Your task to perform on an android device: View the shopping cart on ebay. Add "bose quietcomfort 35" to the cart on ebay, then select checkout. Image 0: 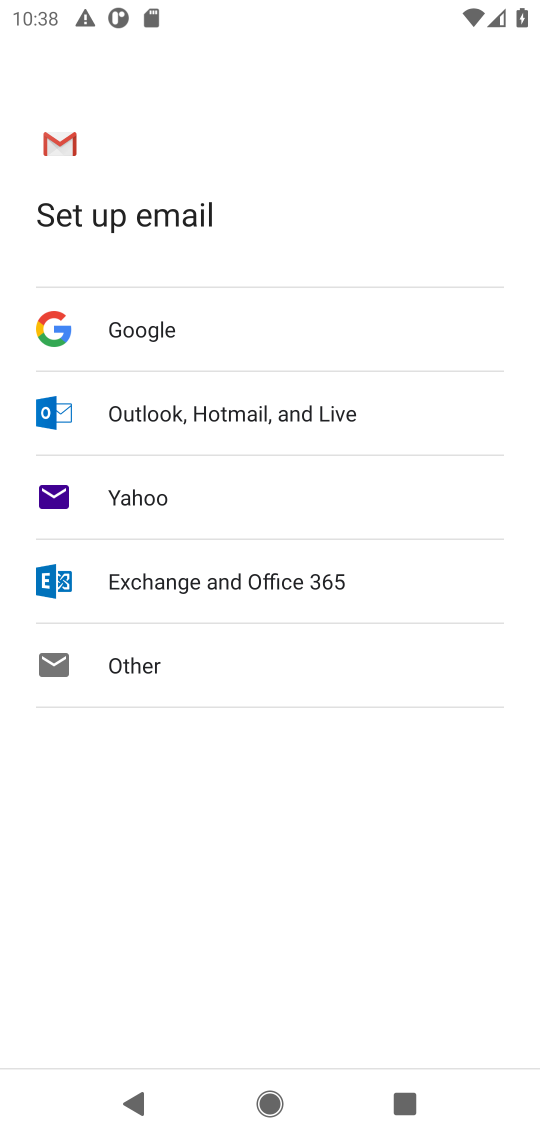
Step 0: press home button
Your task to perform on an android device: View the shopping cart on ebay. Add "bose quietcomfort 35" to the cart on ebay, then select checkout. Image 1: 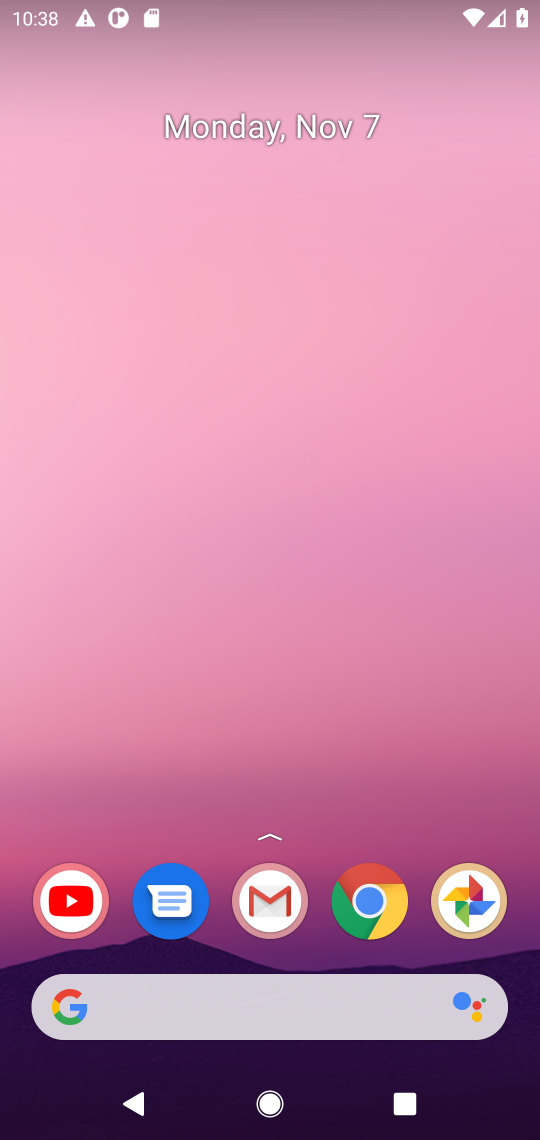
Step 1: click (396, 891)
Your task to perform on an android device: View the shopping cart on ebay. Add "bose quietcomfort 35" to the cart on ebay, then select checkout. Image 2: 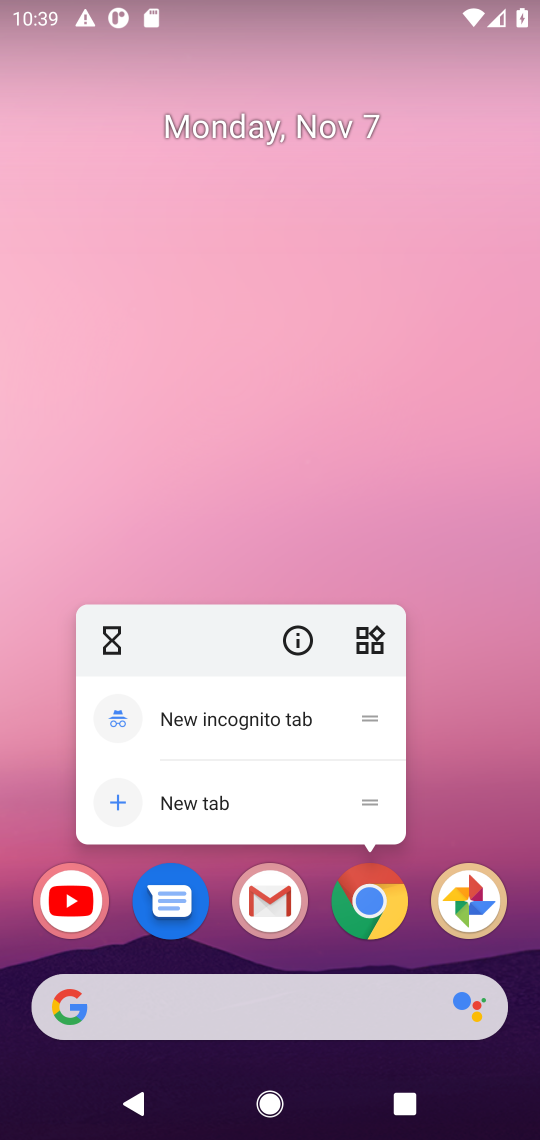
Step 2: click (359, 903)
Your task to perform on an android device: View the shopping cart on ebay. Add "bose quietcomfort 35" to the cart on ebay, then select checkout. Image 3: 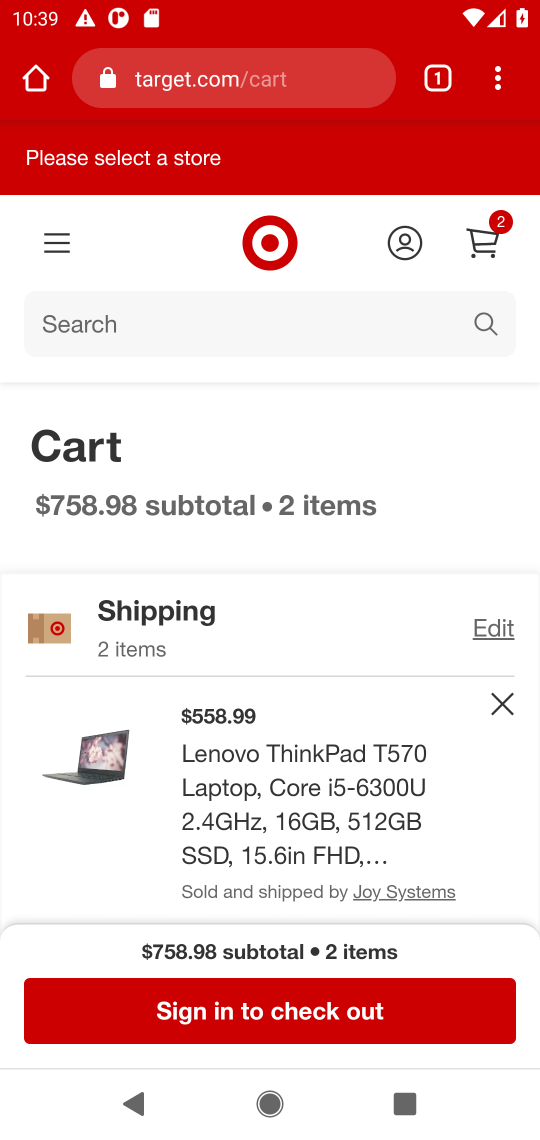
Step 3: click (248, 70)
Your task to perform on an android device: View the shopping cart on ebay. Add "bose quietcomfort 35" to the cart on ebay, then select checkout. Image 4: 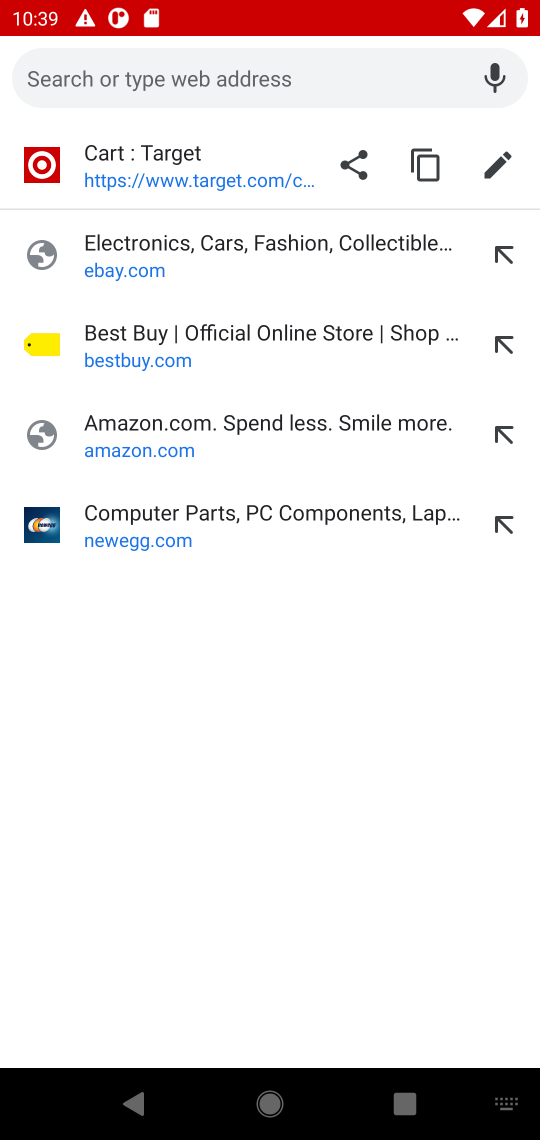
Step 4: type "ebay"
Your task to perform on an android device: View the shopping cart on ebay. Add "bose quietcomfort 35" to the cart on ebay, then select checkout. Image 5: 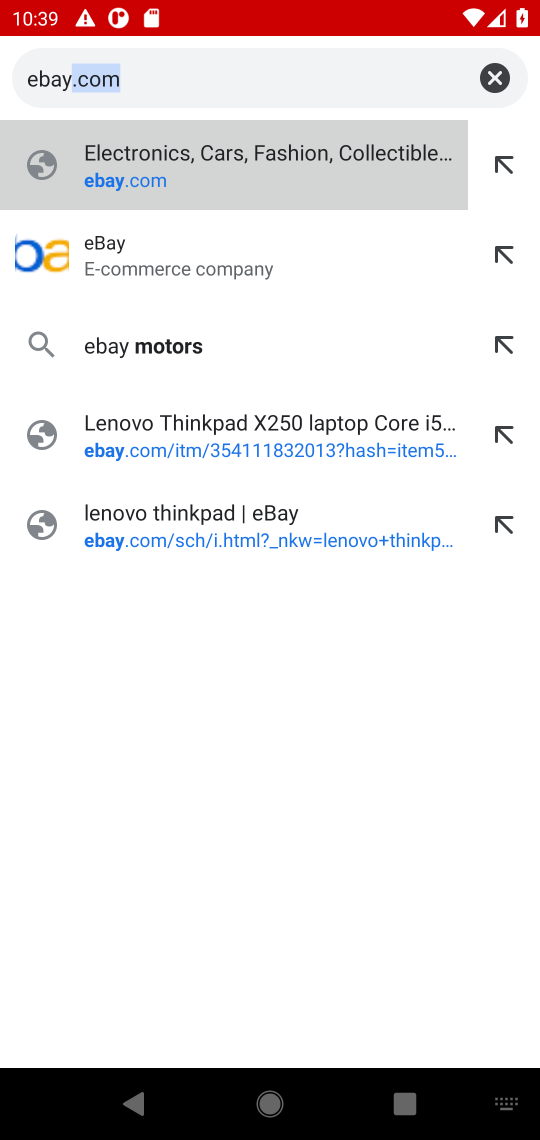
Step 5: click (319, 162)
Your task to perform on an android device: View the shopping cart on ebay. Add "bose quietcomfort 35" to the cart on ebay, then select checkout. Image 6: 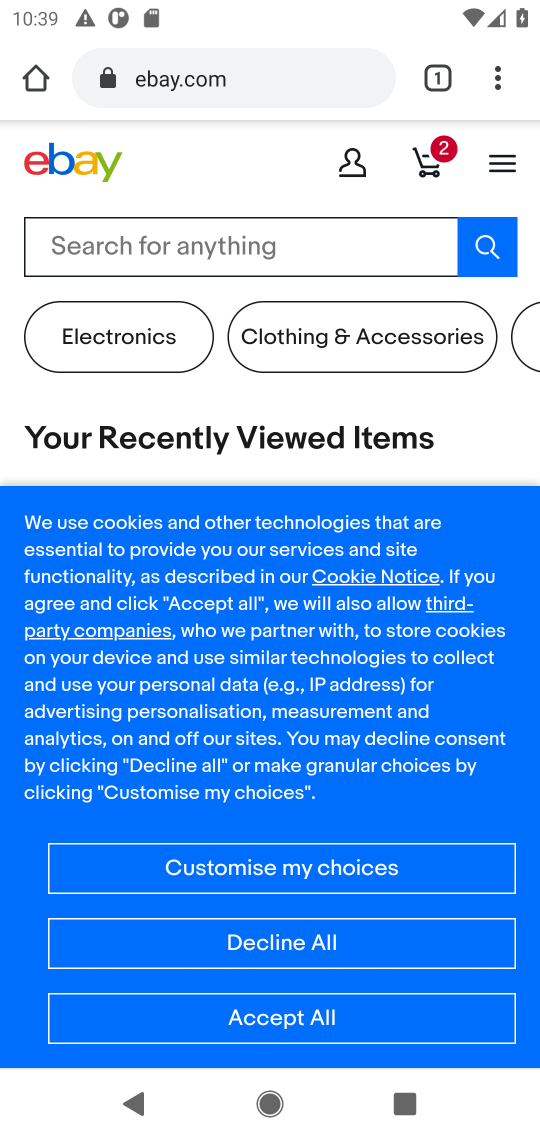
Step 6: click (152, 257)
Your task to perform on an android device: View the shopping cart on ebay. Add "bose quietcomfort 35" to the cart on ebay, then select checkout. Image 7: 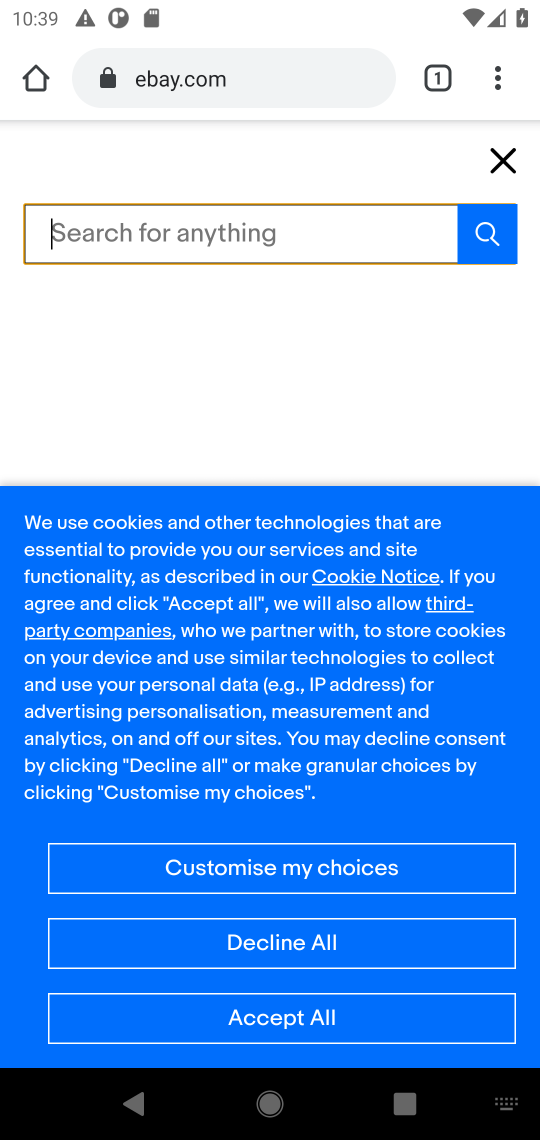
Step 7: type "bose quietcomfort 35"
Your task to perform on an android device: View the shopping cart on ebay. Add "bose quietcomfort 35" to the cart on ebay, then select checkout. Image 8: 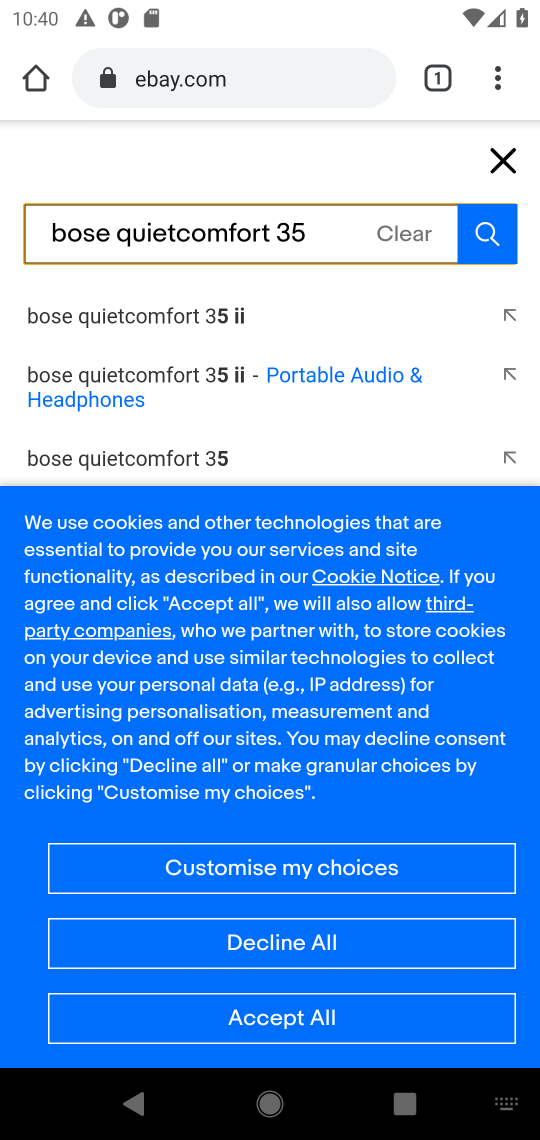
Step 8: press enter
Your task to perform on an android device: View the shopping cart on ebay. Add "bose quietcomfort 35" to the cart on ebay, then select checkout. Image 9: 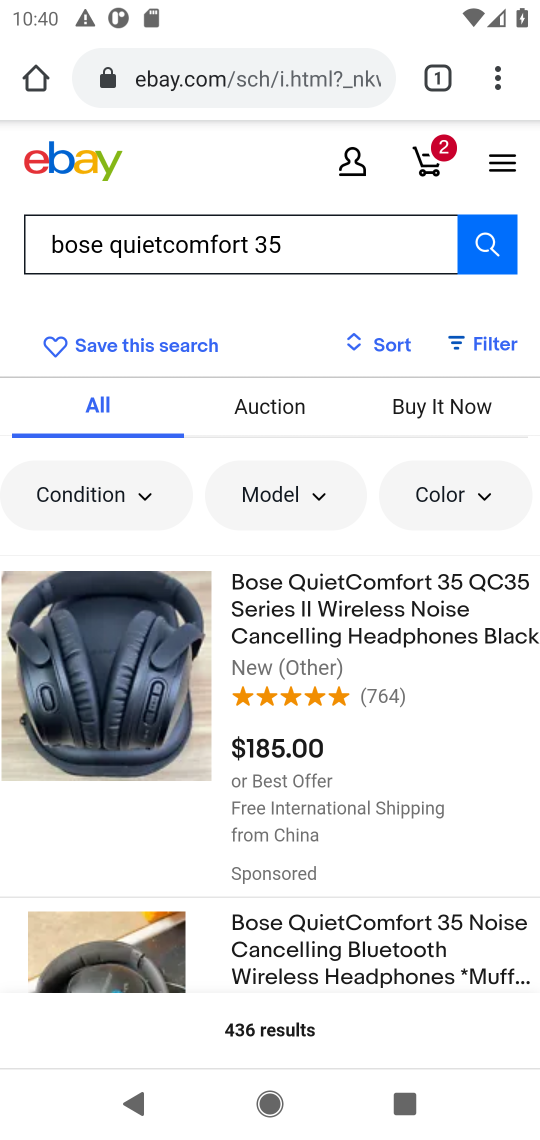
Step 9: click (192, 687)
Your task to perform on an android device: View the shopping cart on ebay. Add "bose quietcomfort 35" to the cart on ebay, then select checkout. Image 10: 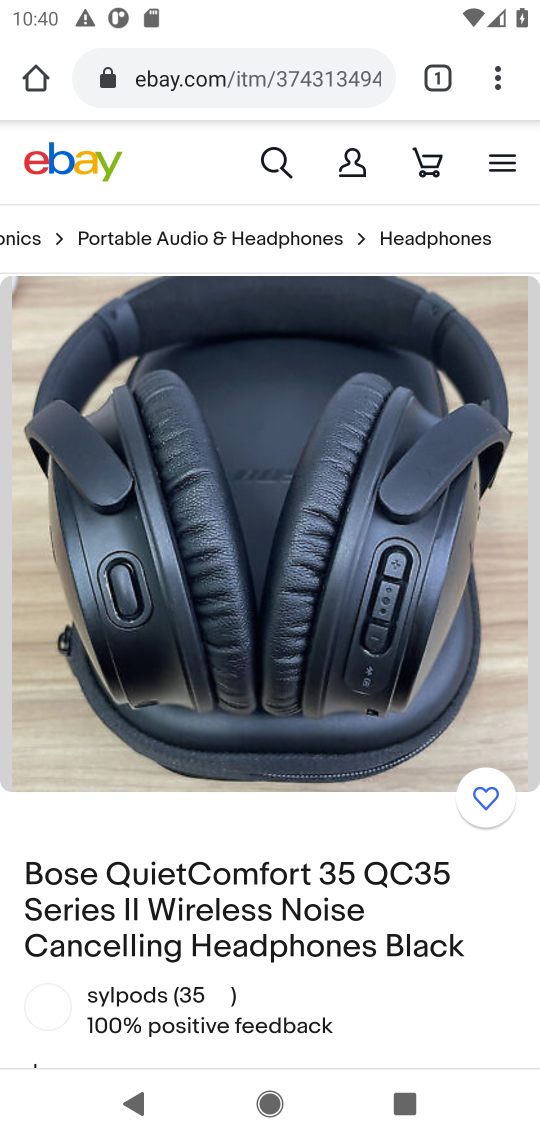
Step 10: drag from (269, 833) to (302, 275)
Your task to perform on an android device: View the shopping cart on ebay. Add "bose quietcomfort 35" to the cart on ebay, then select checkout. Image 11: 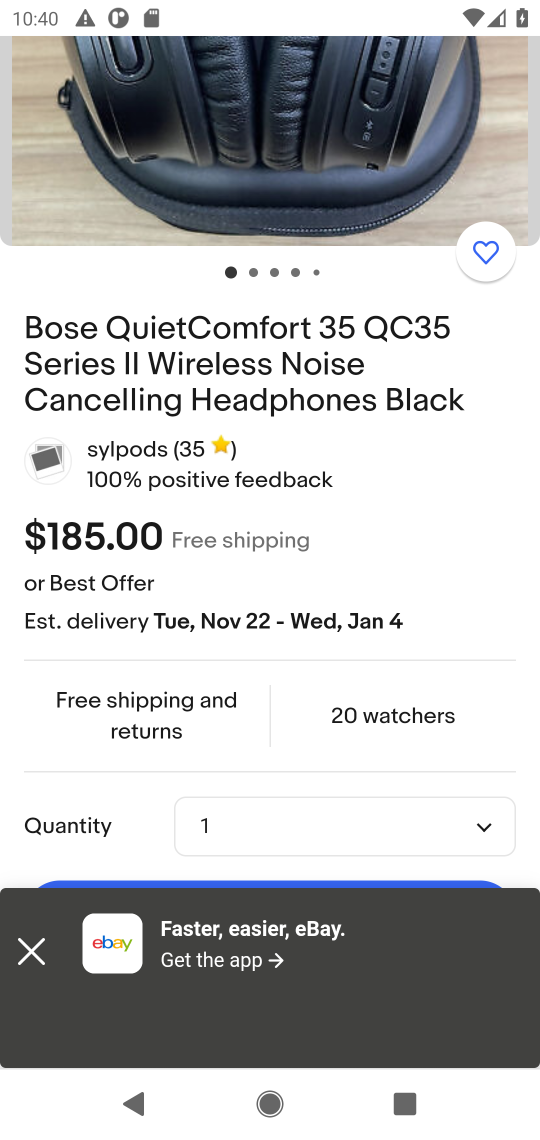
Step 11: drag from (200, 755) to (183, 376)
Your task to perform on an android device: View the shopping cart on ebay. Add "bose quietcomfort 35" to the cart on ebay, then select checkout. Image 12: 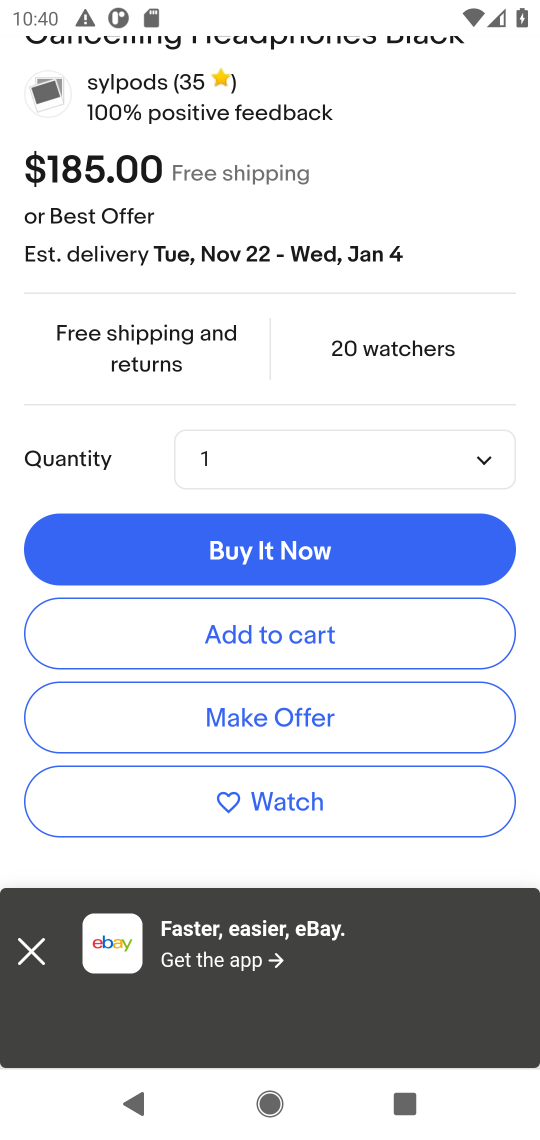
Step 12: click (239, 619)
Your task to perform on an android device: View the shopping cart on ebay. Add "bose quietcomfort 35" to the cart on ebay, then select checkout. Image 13: 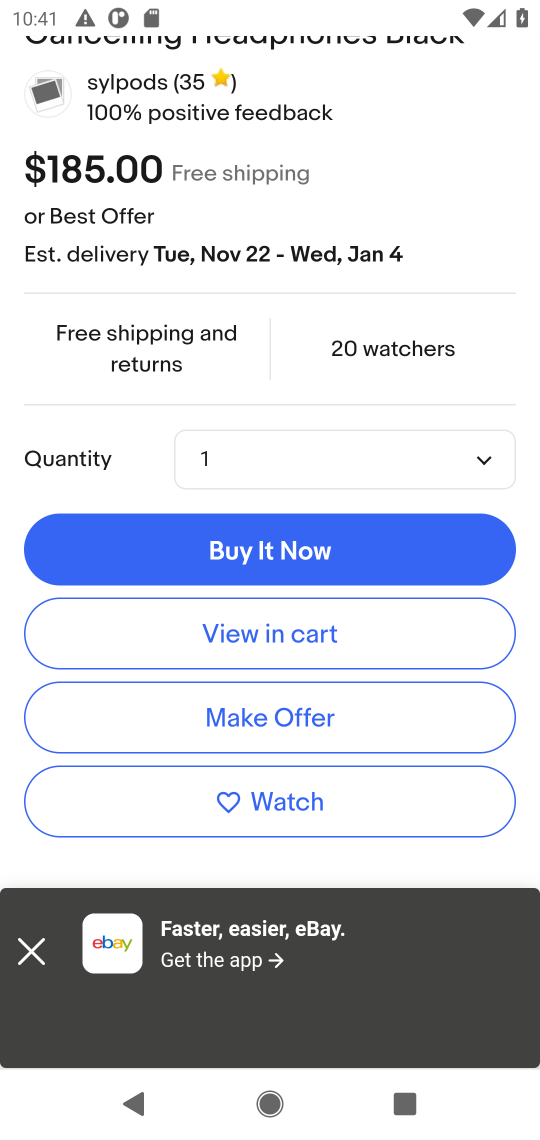
Step 13: drag from (417, 198) to (256, 1002)
Your task to perform on an android device: View the shopping cart on ebay. Add "bose quietcomfort 35" to the cart on ebay, then select checkout. Image 14: 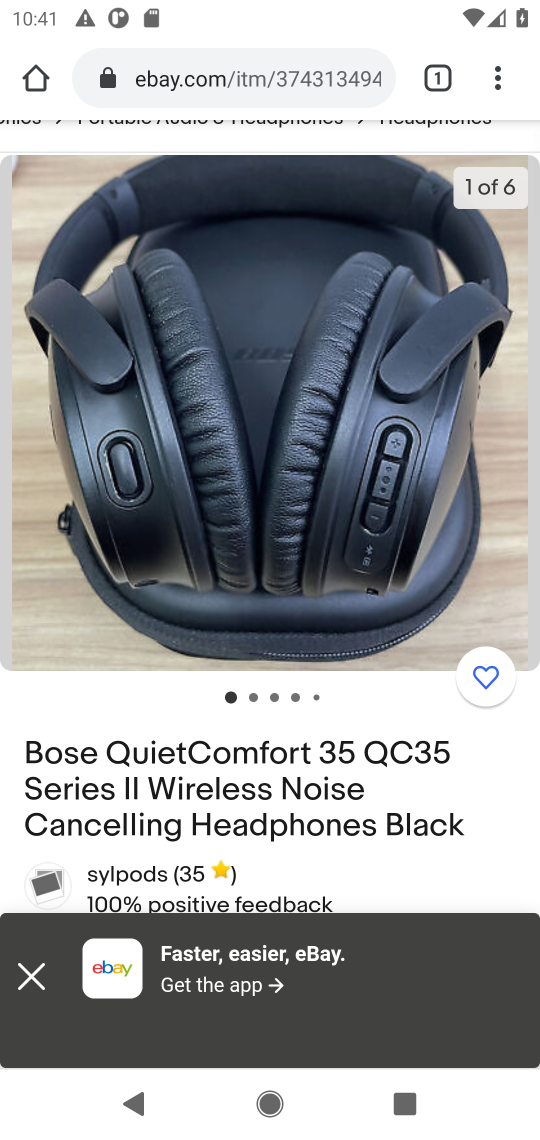
Step 14: drag from (444, 381) to (380, 684)
Your task to perform on an android device: View the shopping cart on ebay. Add "bose quietcomfort 35" to the cart on ebay, then select checkout. Image 15: 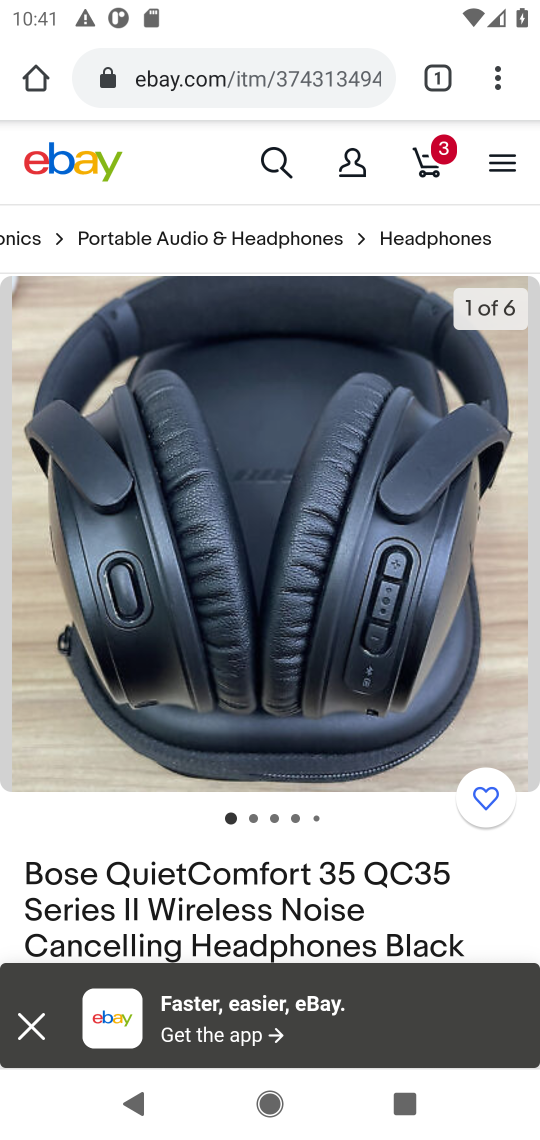
Step 15: click (433, 153)
Your task to perform on an android device: View the shopping cart on ebay. Add "bose quietcomfort 35" to the cart on ebay, then select checkout. Image 16: 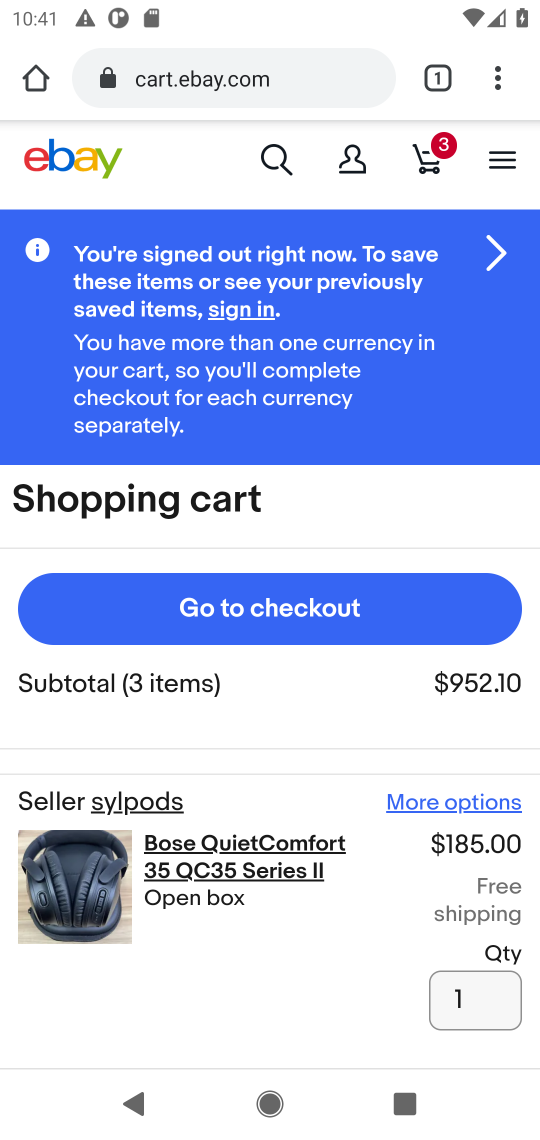
Step 16: click (296, 607)
Your task to perform on an android device: View the shopping cart on ebay. Add "bose quietcomfort 35" to the cart on ebay, then select checkout. Image 17: 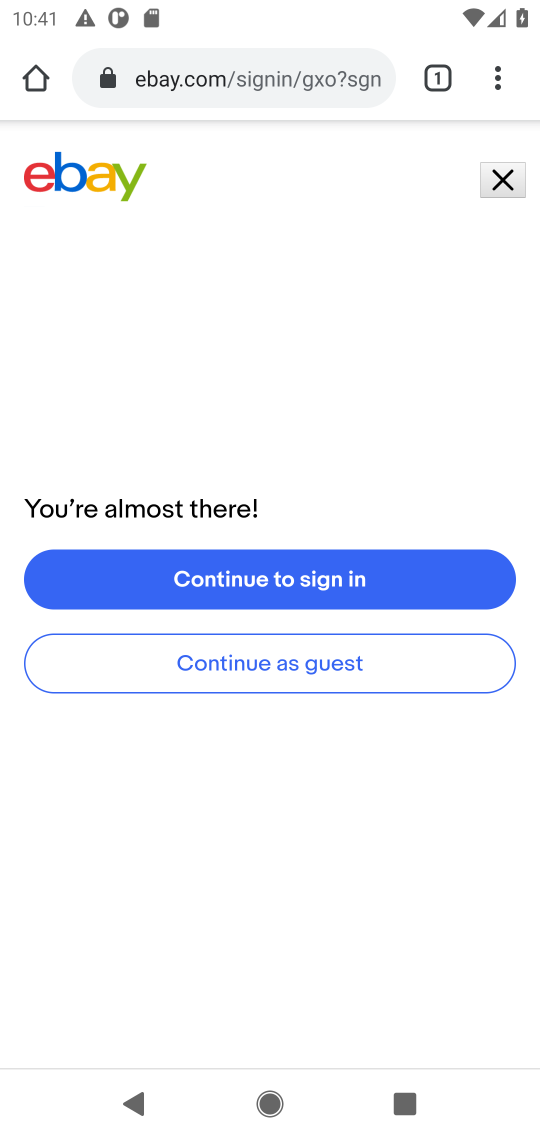
Step 17: task complete